Your task to perform on an android device: Turn off the flashlight Image 0: 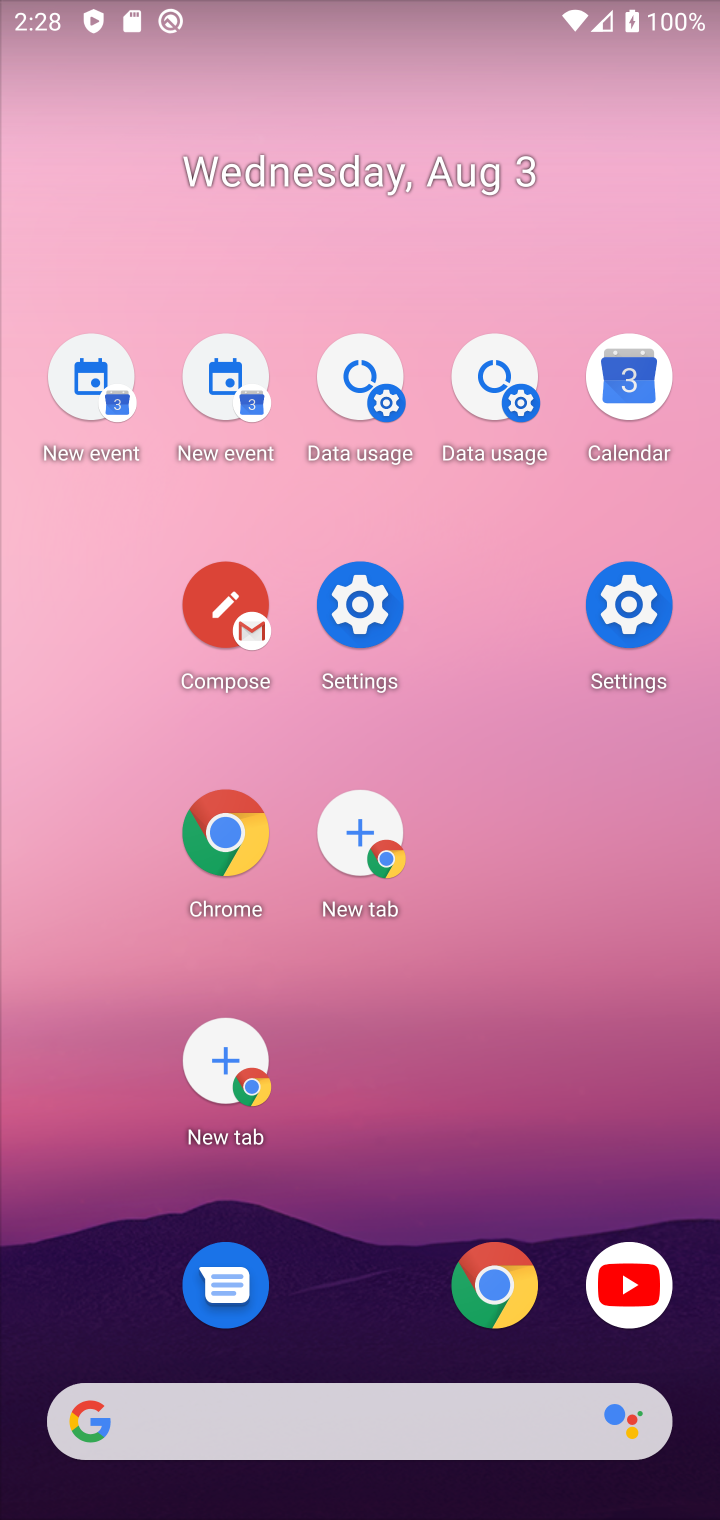
Step 0: drag from (475, 1377) to (290, 204)
Your task to perform on an android device: Turn off the flashlight Image 1: 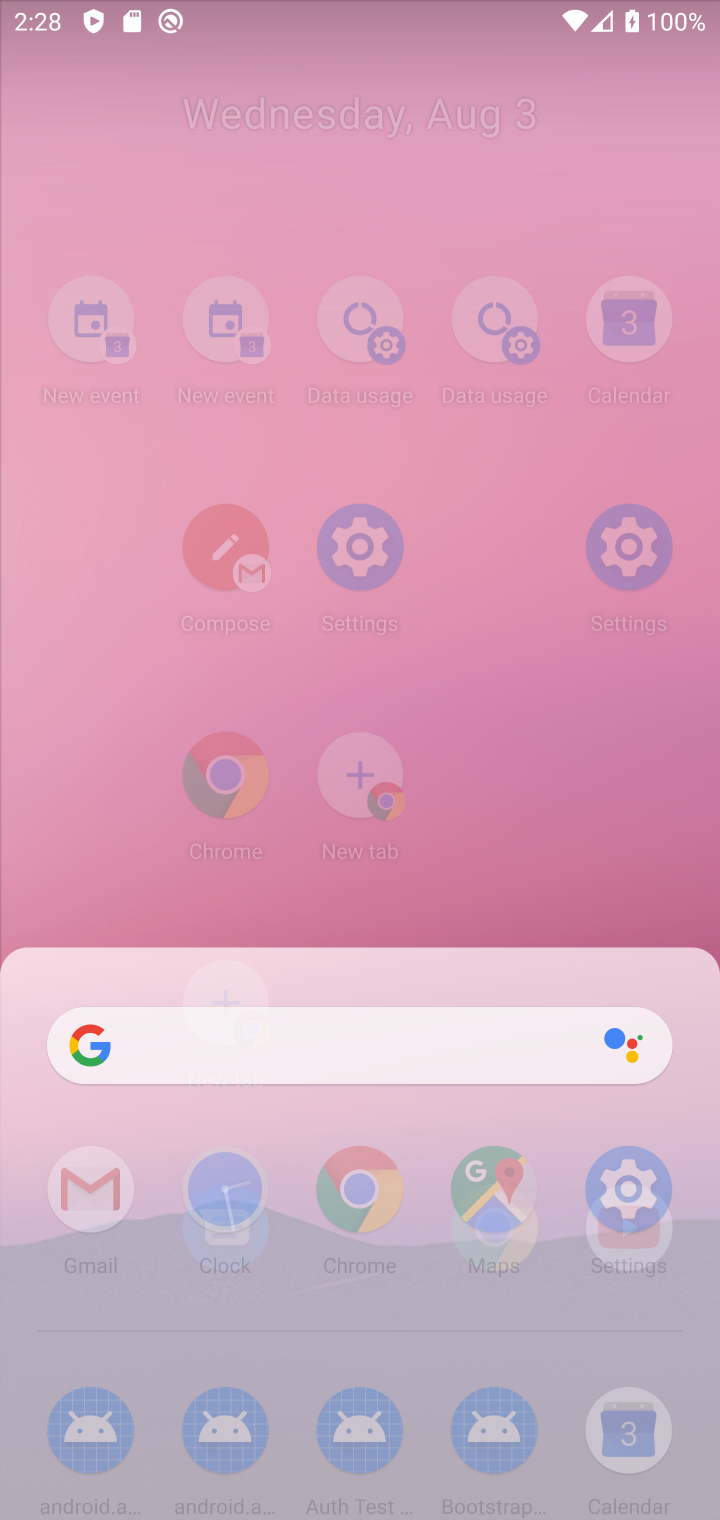
Step 1: task complete